Your task to perform on an android device: turn off smart reply in the gmail app Image 0: 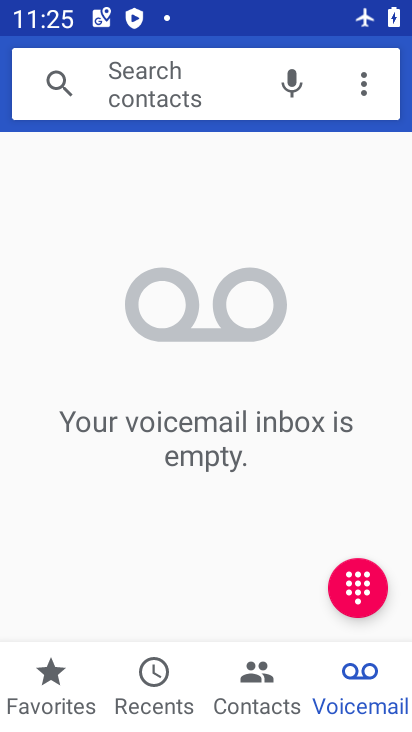
Step 0: press home button
Your task to perform on an android device: turn off smart reply in the gmail app Image 1: 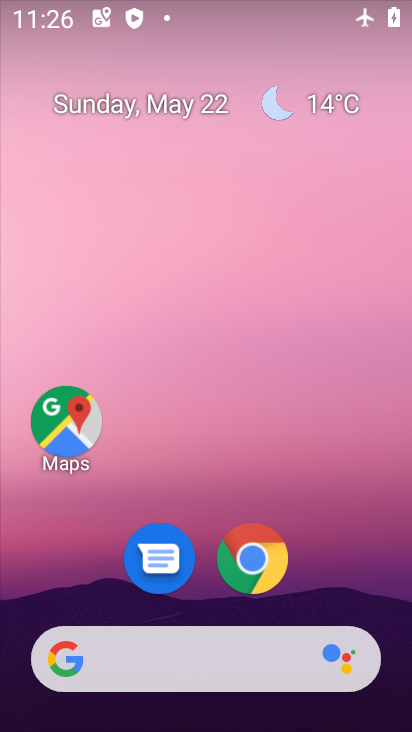
Step 1: drag from (355, 614) to (383, 6)
Your task to perform on an android device: turn off smart reply in the gmail app Image 2: 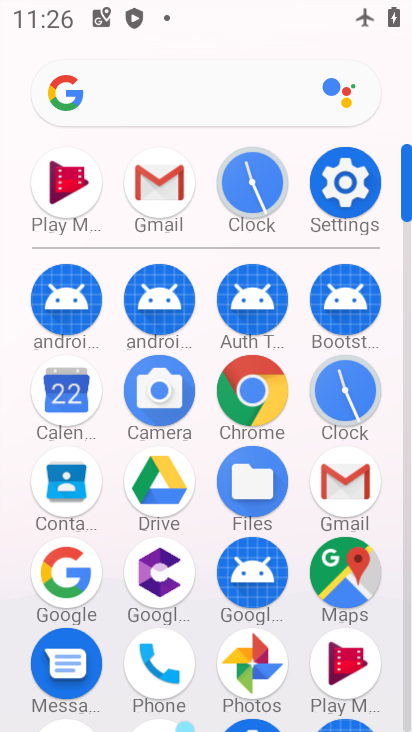
Step 2: click (150, 192)
Your task to perform on an android device: turn off smart reply in the gmail app Image 3: 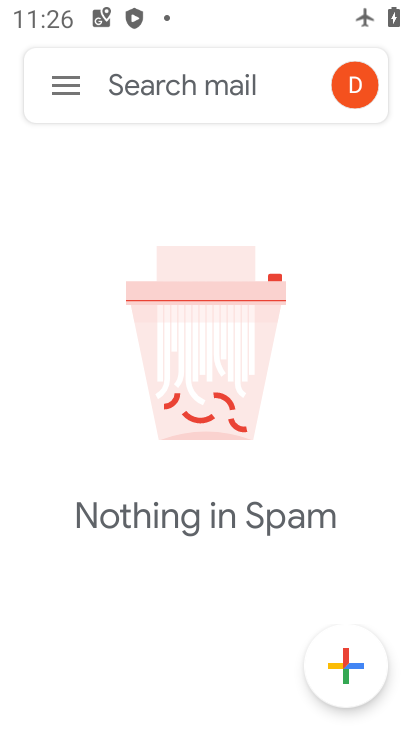
Step 3: click (59, 91)
Your task to perform on an android device: turn off smart reply in the gmail app Image 4: 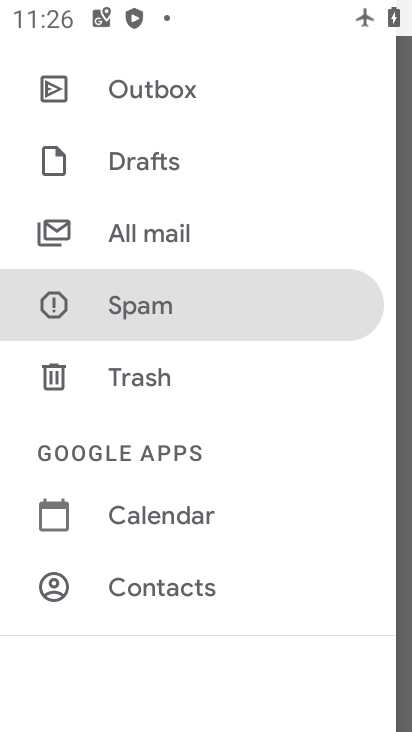
Step 4: drag from (220, 548) to (237, 119)
Your task to perform on an android device: turn off smart reply in the gmail app Image 5: 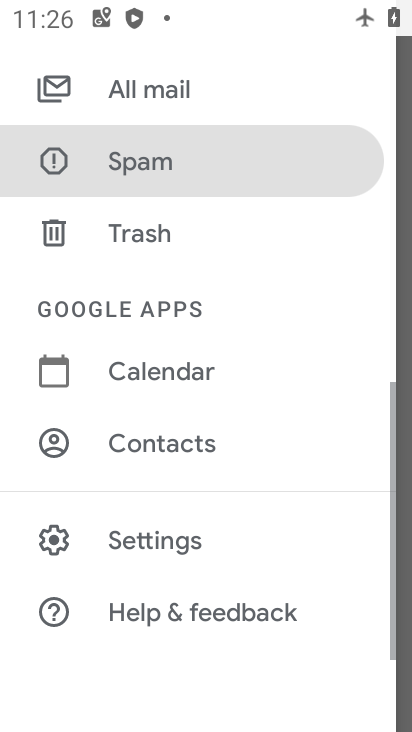
Step 5: click (159, 536)
Your task to perform on an android device: turn off smart reply in the gmail app Image 6: 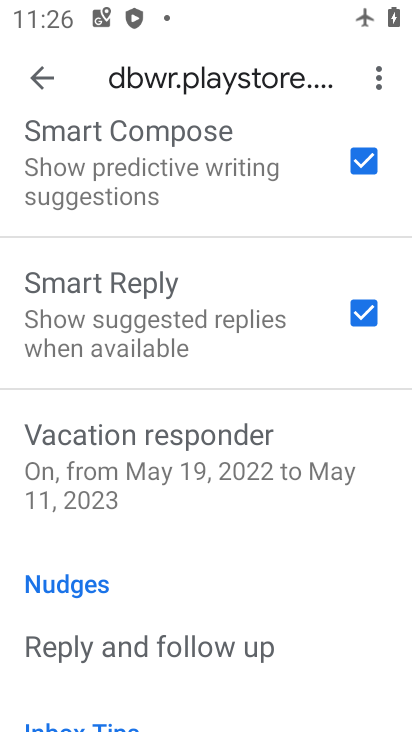
Step 6: click (359, 315)
Your task to perform on an android device: turn off smart reply in the gmail app Image 7: 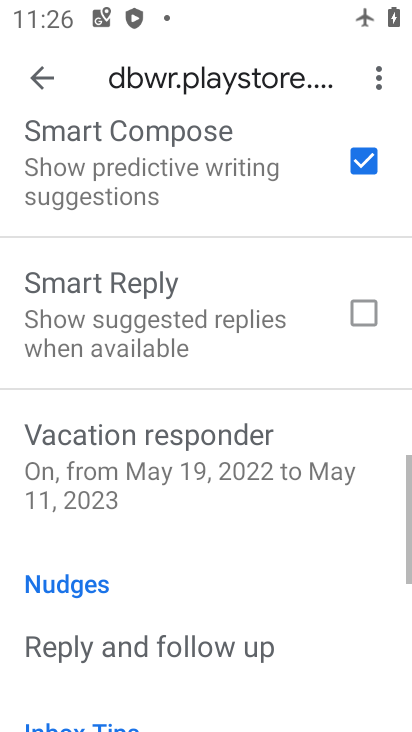
Step 7: task complete